Your task to perform on an android device: empty trash in google photos Image 0: 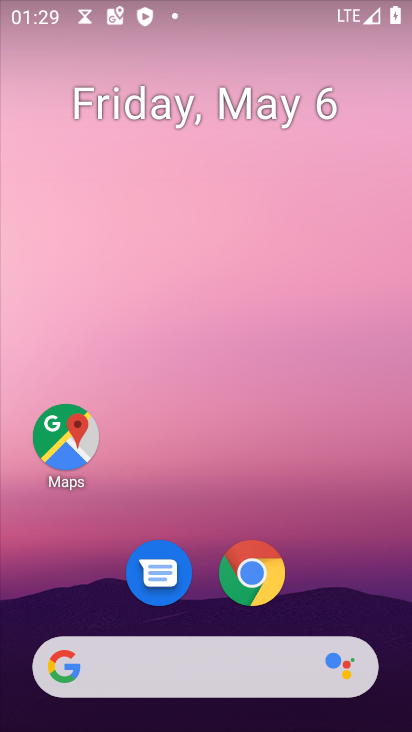
Step 0: drag from (315, 541) to (305, 312)
Your task to perform on an android device: empty trash in google photos Image 1: 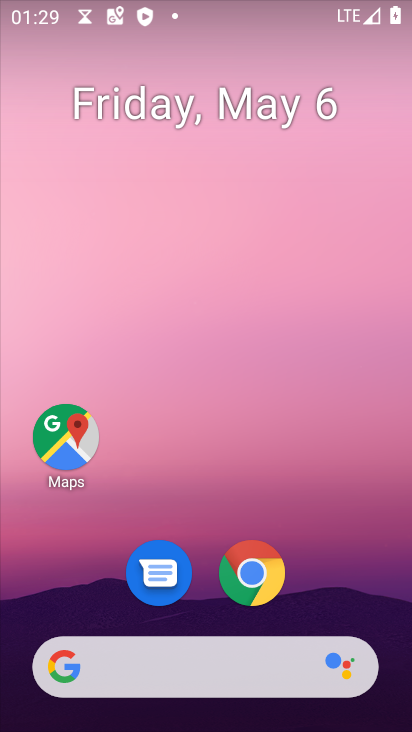
Step 1: drag from (313, 593) to (316, 228)
Your task to perform on an android device: empty trash in google photos Image 2: 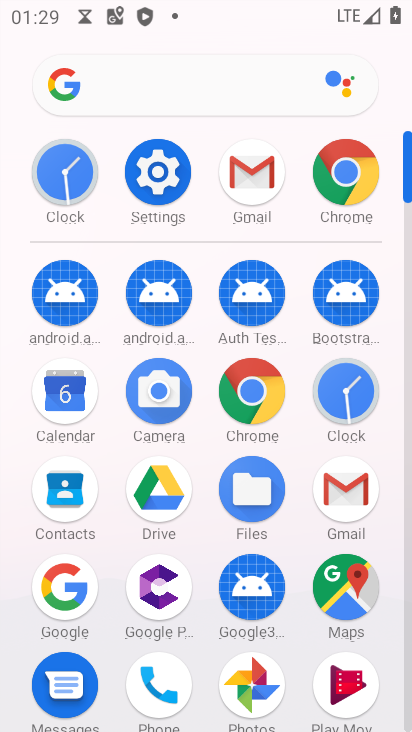
Step 2: click (168, 170)
Your task to perform on an android device: empty trash in google photos Image 3: 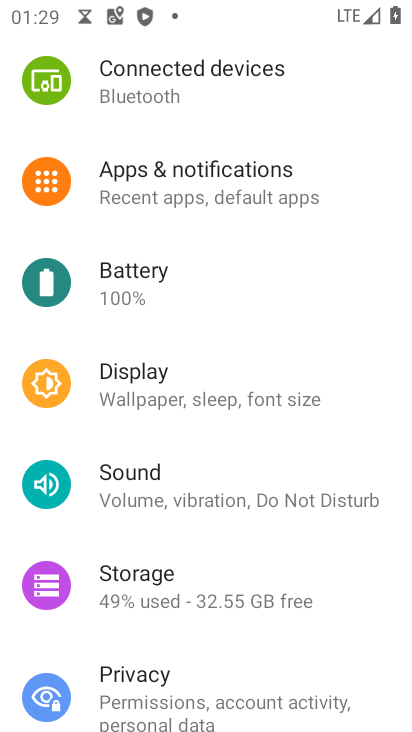
Step 3: press home button
Your task to perform on an android device: empty trash in google photos Image 4: 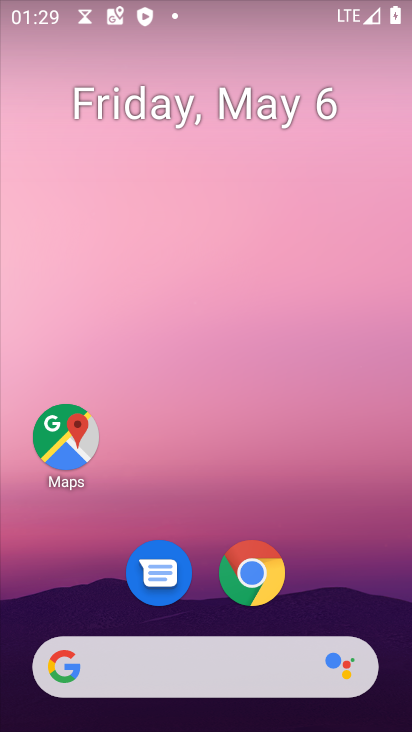
Step 4: drag from (297, 455) to (273, 251)
Your task to perform on an android device: empty trash in google photos Image 5: 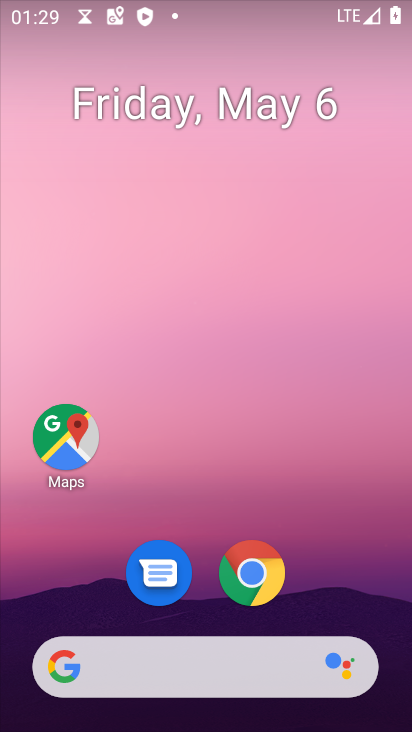
Step 5: drag from (308, 590) to (327, 301)
Your task to perform on an android device: empty trash in google photos Image 6: 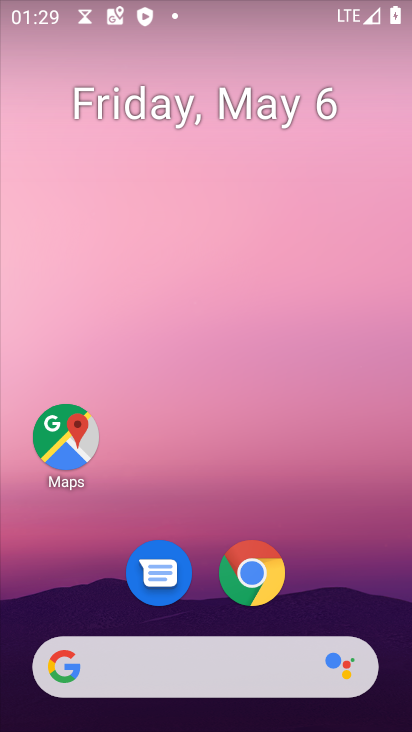
Step 6: drag from (318, 606) to (385, 60)
Your task to perform on an android device: empty trash in google photos Image 7: 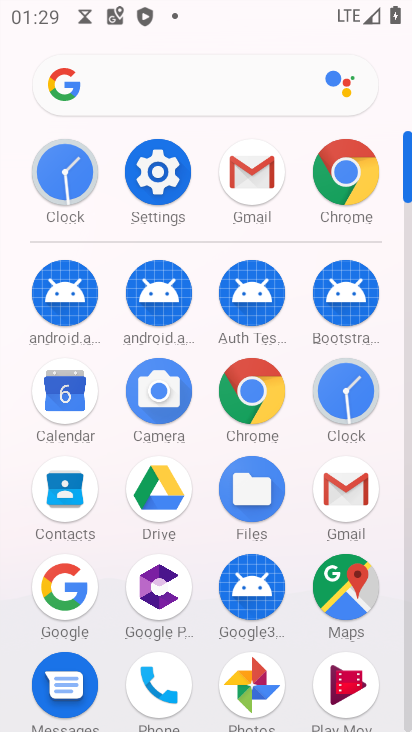
Step 7: click (256, 687)
Your task to perform on an android device: empty trash in google photos Image 8: 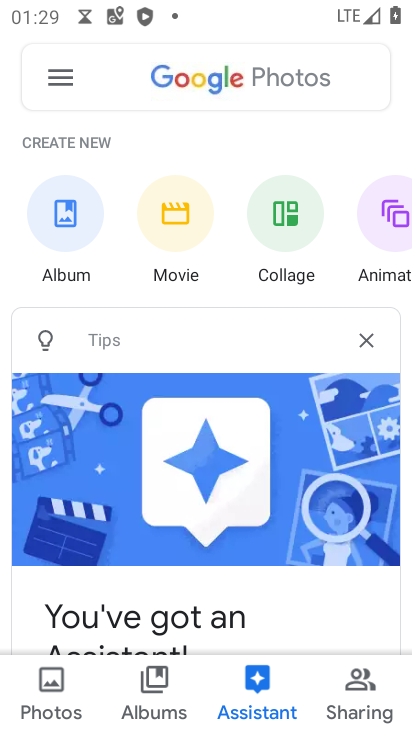
Step 8: click (69, 77)
Your task to perform on an android device: empty trash in google photos Image 9: 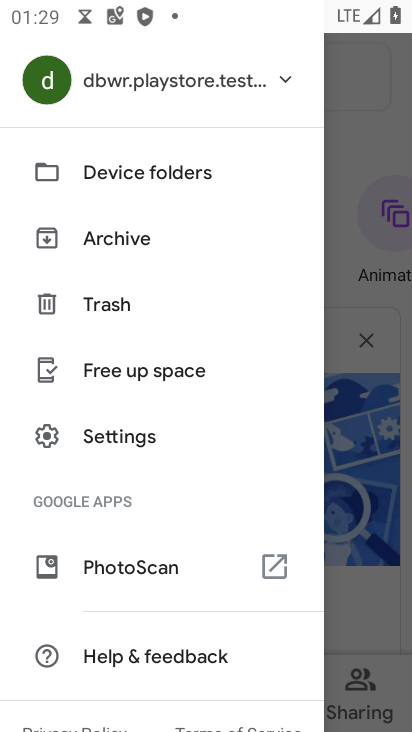
Step 9: click (124, 303)
Your task to perform on an android device: empty trash in google photos Image 10: 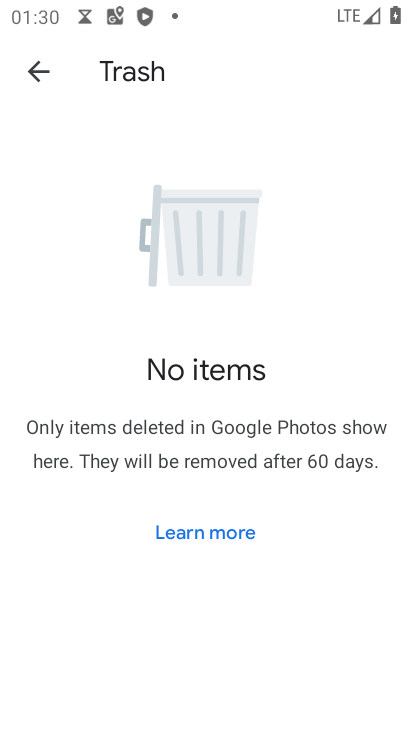
Step 10: task complete